Your task to perform on an android device: check the backup settings in the google photos Image 0: 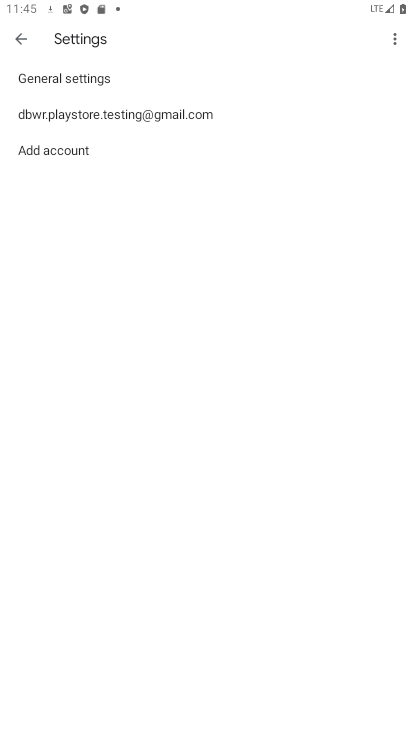
Step 0: press home button
Your task to perform on an android device: check the backup settings in the google photos Image 1: 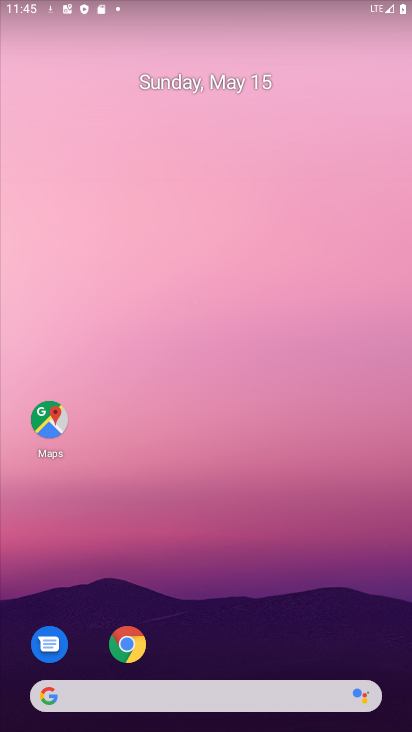
Step 1: drag from (244, 720) to (326, 4)
Your task to perform on an android device: check the backup settings in the google photos Image 2: 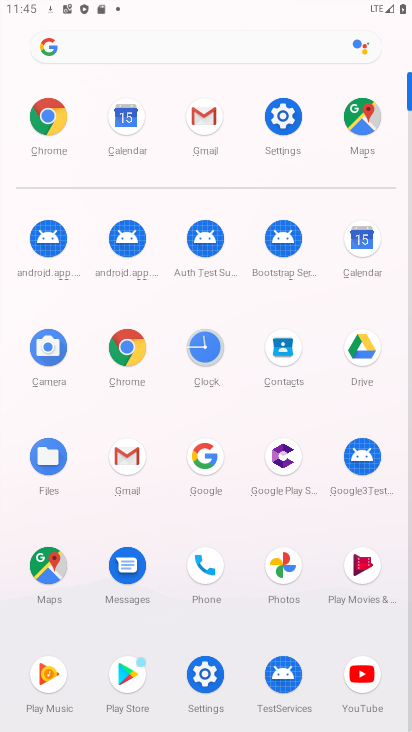
Step 2: click (275, 570)
Your task to perform on an android device: check the backup settings in the google photos Image 3: 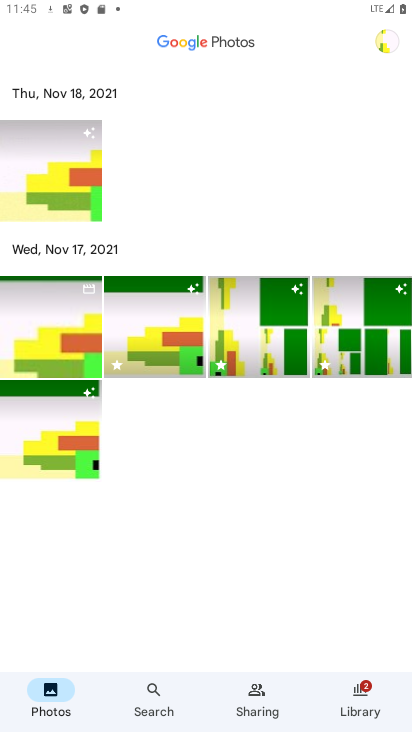
Step 3: click (384, 39)
Your task to perform on an android device: check the backup settings in the google photos Image 4: 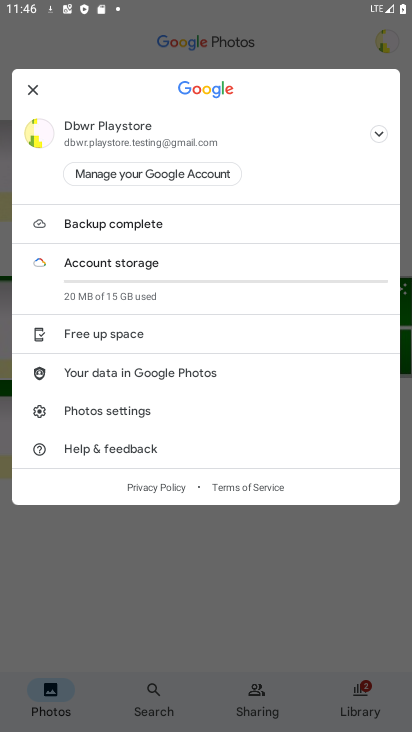
Step 4: click (117, 414)
Your task to perform on an android device: check the backup settings in the google photos Image 5: 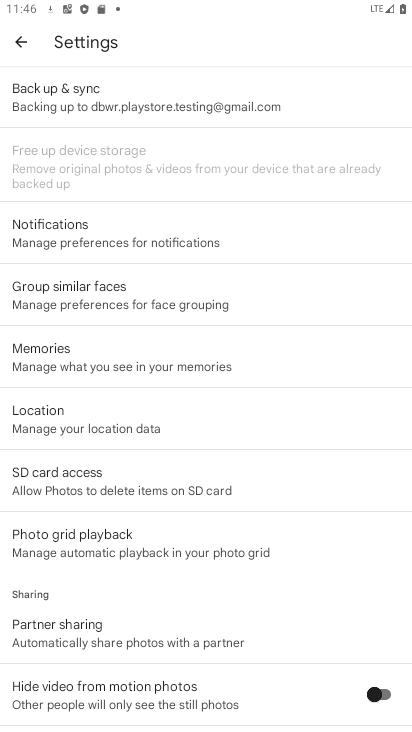
Step 5: click (112, 107)
Your task to perform on an android device: check the backup settings in the google photos Image 6: 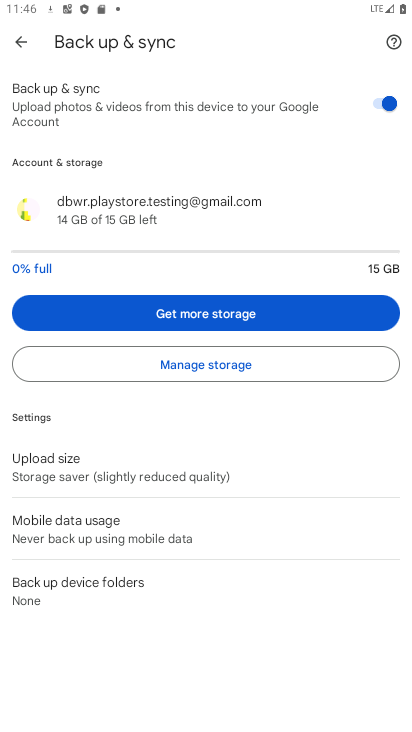
Step 6: task complete